Your task to perform on an android device: turn on bluetooth scan Image 0: 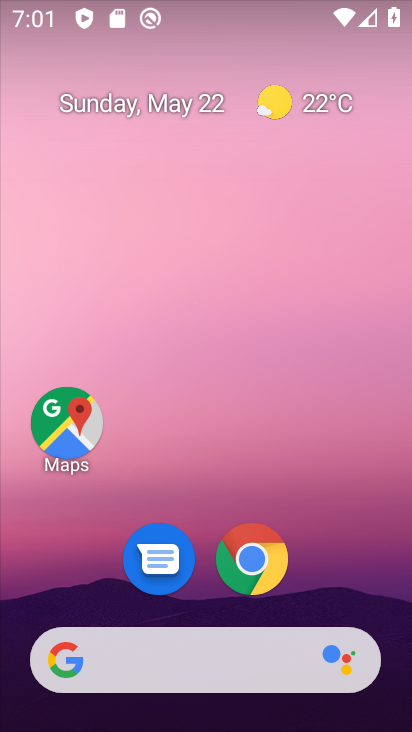
Step 0: drag from (249, 692) to (158, 167)
Your task to perform on an android device: turn on bluetooth scan Image 1: 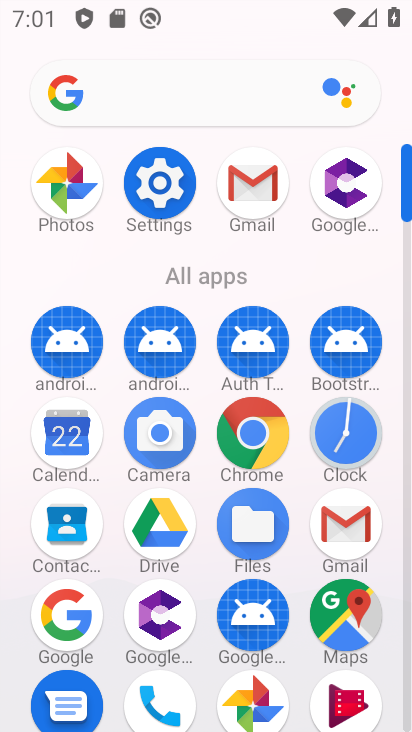
Step 1: click (167, 183)
Your task to perform on an android device: turn on bluetooth scan Image 2: 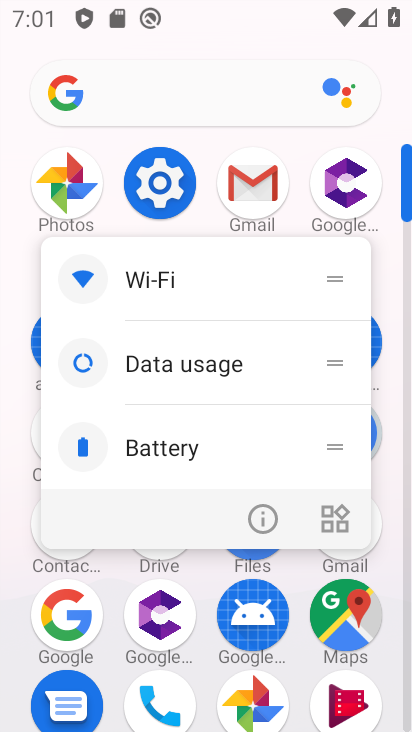
Step 2: click (167, 183)
Your task to perform on an android device: turn on bluetooth scan Image 3: 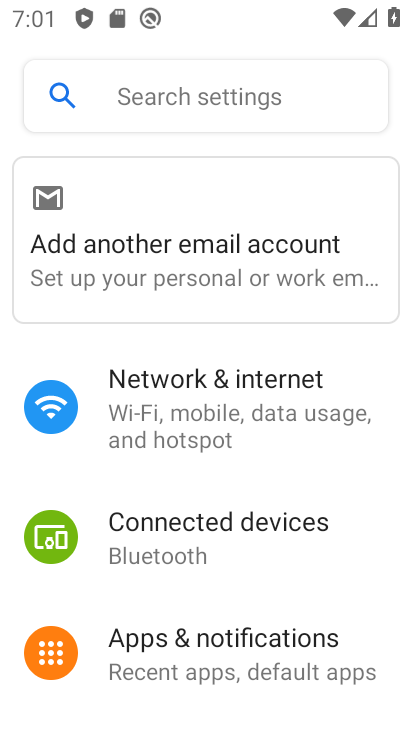
Step 3: click (156, 91)
Your task to perform on an android device: turn on bluetooth scan Image 4: 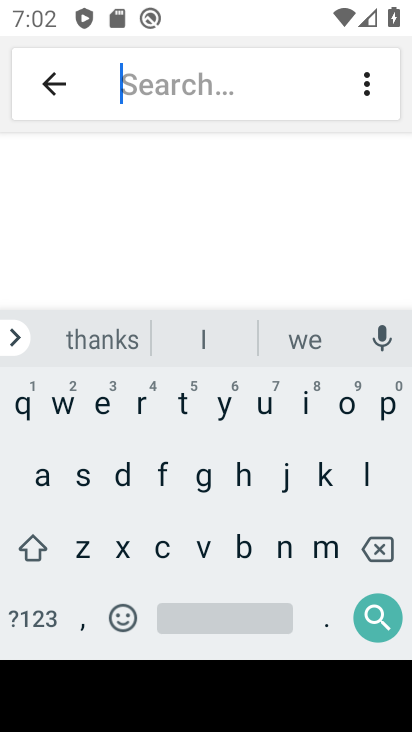
Step 4: click (360, 471)
Your task to perform on an android device: turn on bluetooth scan Image 5: 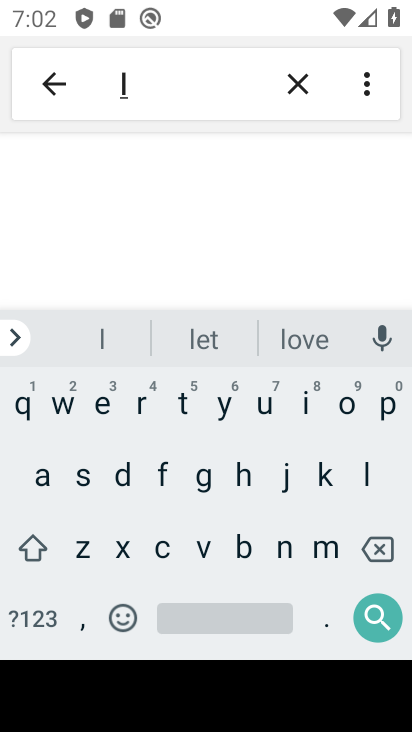
Step 5: click (336, 408)
Your task to perform on an android device: turn on bluetooth scan Image 6: 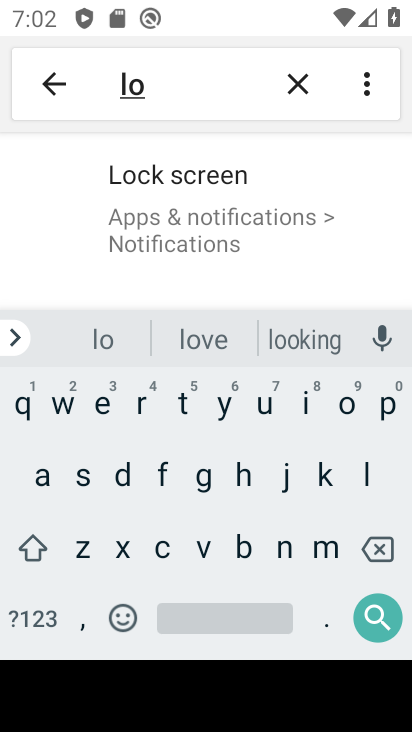
Step 6: drag from (211, 270) to (185, 174)
Your task to perform on an android device: turn on bluetooth scan Image 7: 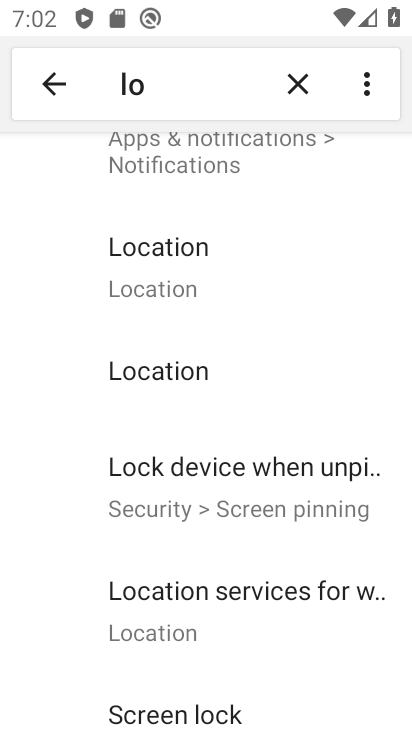
Step 7: click (147, 266)
Your task to perform on an android device: turn on bluetooth scan Image 8: 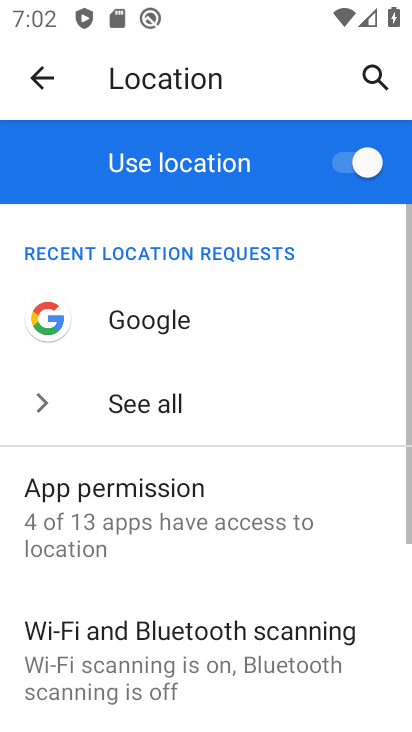
Step 8: drag from (209, 615) to (177, 523)
Your task to perform on an android device: turn on bluetooth scan Image 9: 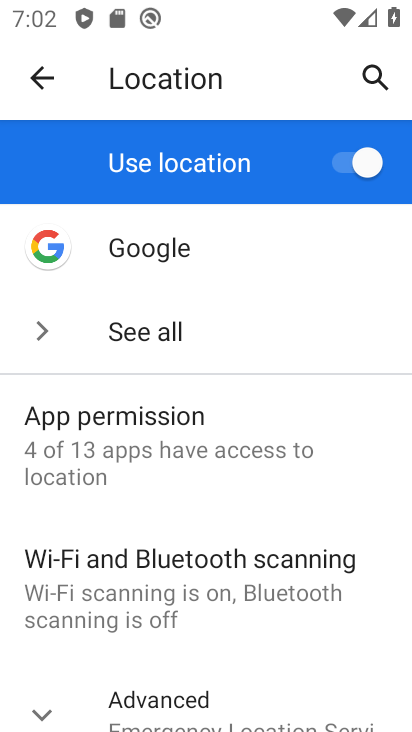
Step 9: click (184, 570)
Your task to perform on an android device: turn on bluetooth scan Image 10: 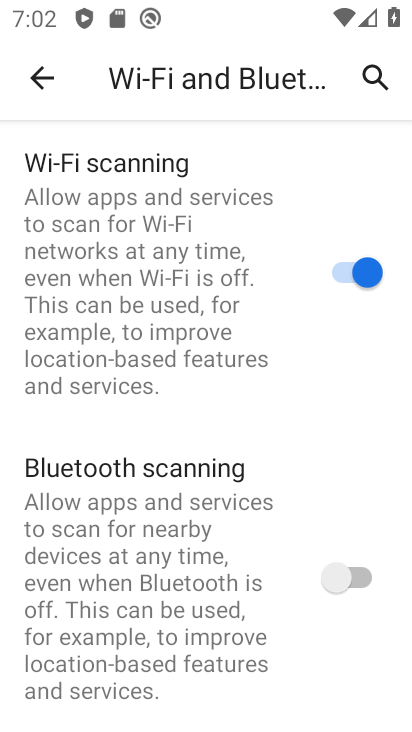
Step 10: click (368, 591)
Your task to perform on an android device: turn on bluetooth scan Image 11: 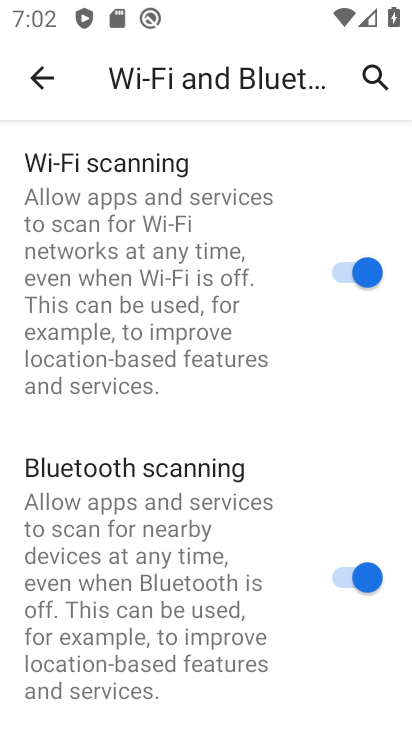
Step 11: task complete